Your task to perform on an android device: change the upload size in google photos Image 0: 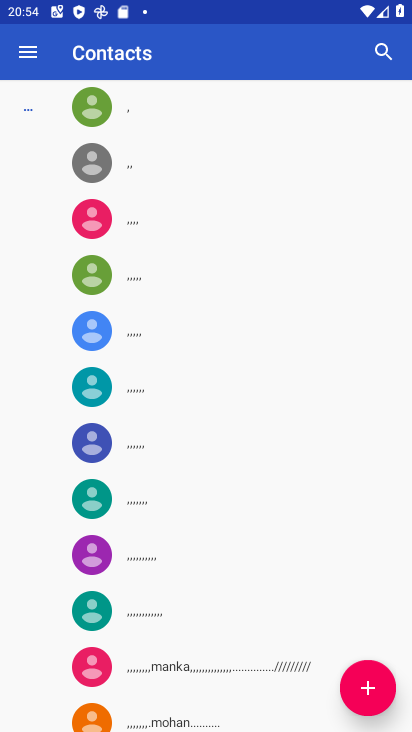
Step 0: press home button
Your task to perform on an android device: change the upload size in google photos Image 1: 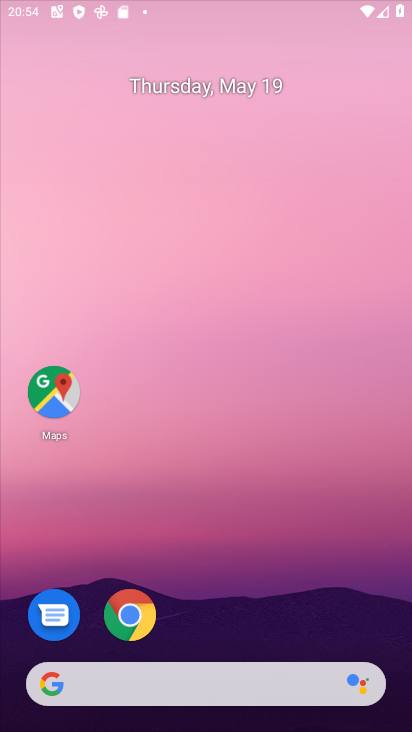
Step 1: drag from (265, 585) to (256, 38)
Your task to perform on an android device: change the upload size in google photos Image 2: 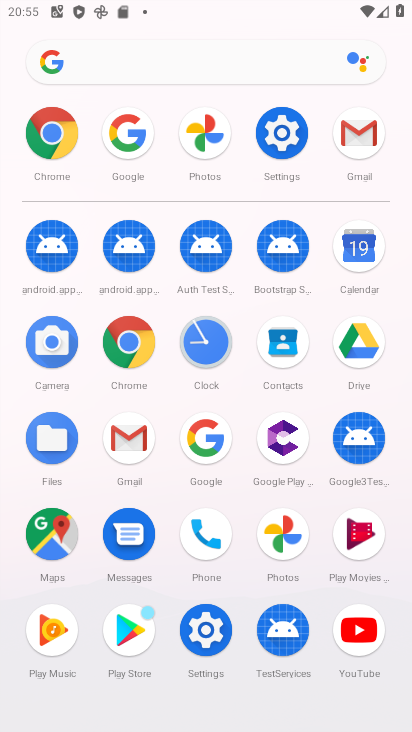
Step 2: click (290, 530)
Your task to perform on an android device: change the upload size in google photos Image 3: 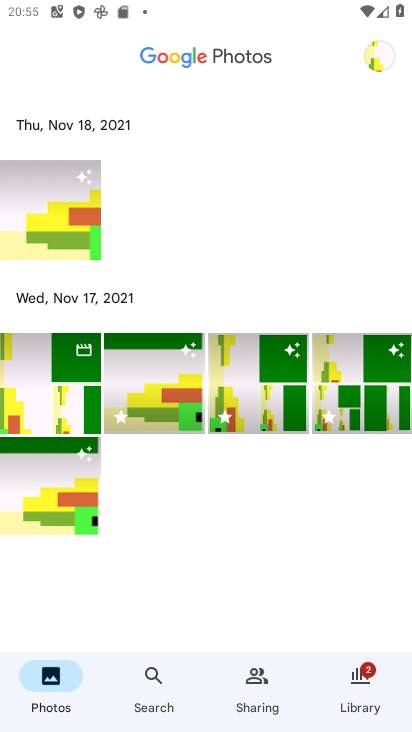
Step 3: click (380, 52)
Your task to perform on an android device: change the upload size in google photos Image 4: 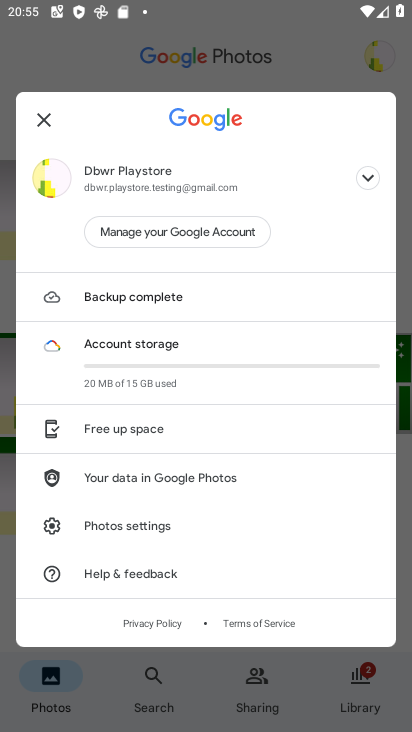
Step 4: click (166, 530)
Your task to perform on an android device: change the upload size in google photos Image 5: 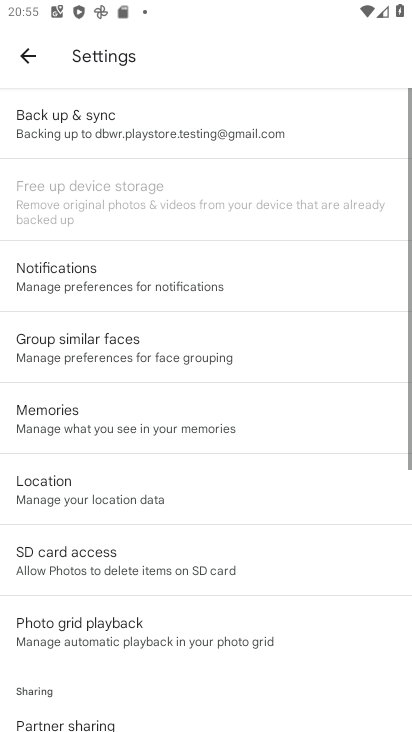
Step 5: click (123, 121)
Your task to perform on an android device: change the upload size in google photos Image 6: 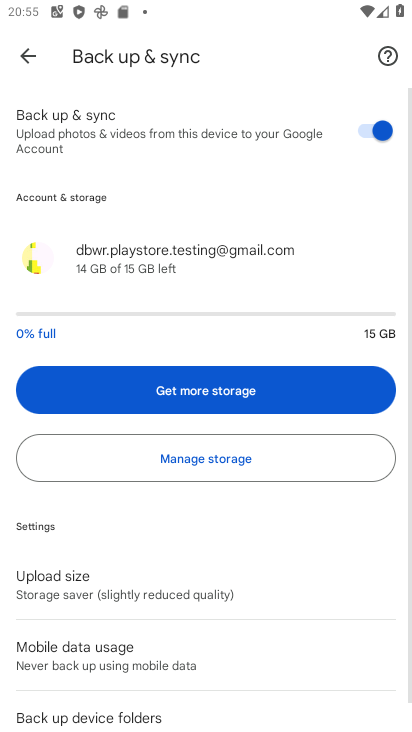
Step 6: click (139, 585)
Your task to perform on an android device: change the upload size in google photos Image 7: 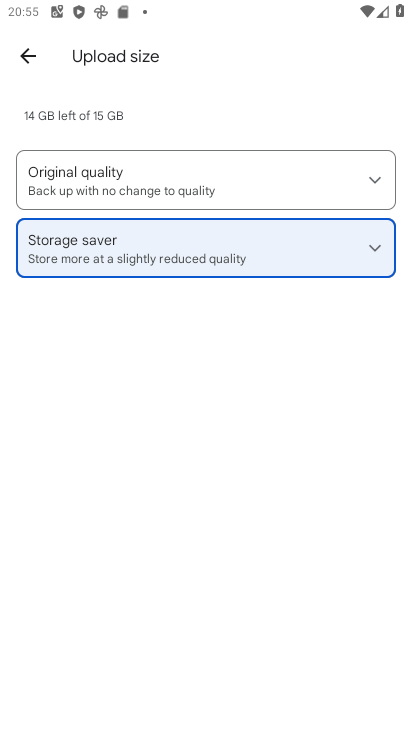
Step 7: click (104, 183)
Your task to perform on an android device: change the upload size in google photos Image 8: 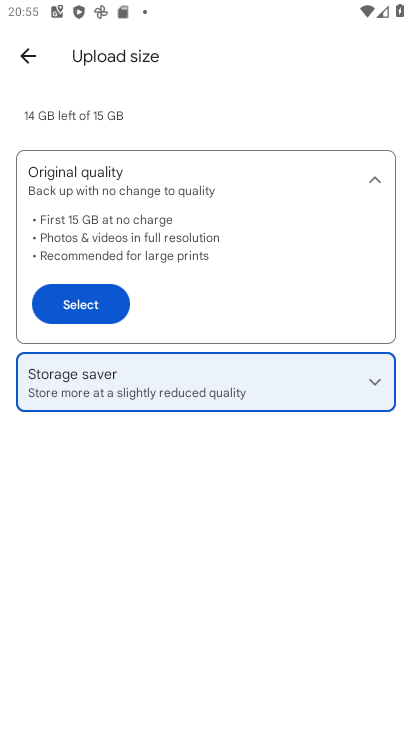
Step 8: click (77, 293)
Your task to perform on an android device: change the upload size in google photos Image 9: 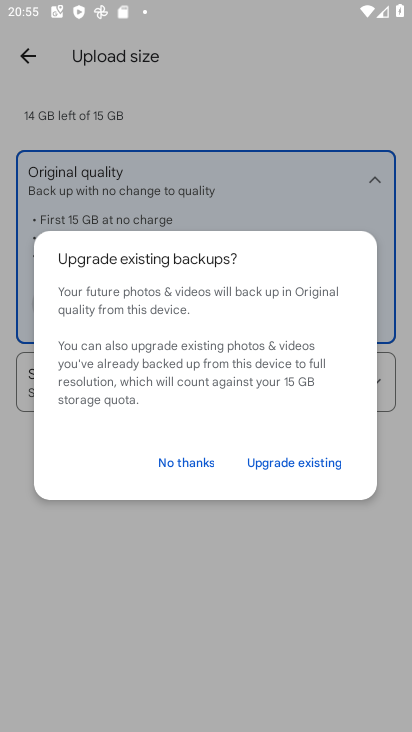
Step 9: click (200, 441)
Your task to perform on an android device: change the upload size in google photos Image 10: 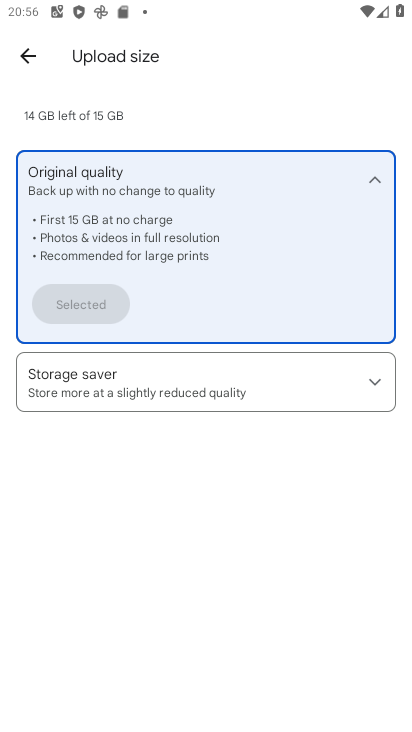
Step 10: task complete